Your task to perform on an android device: Go to CNN.com Image 0: 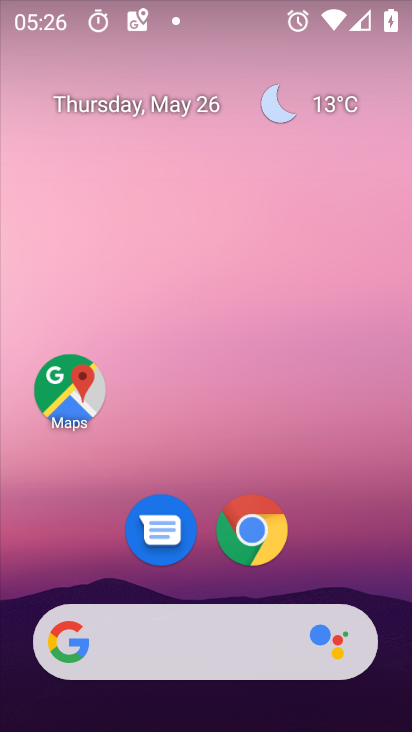
Step 0: drag from (194, 584) to (286, 13)
Your task to perform on an android device: Go to CNN.com Image 1: 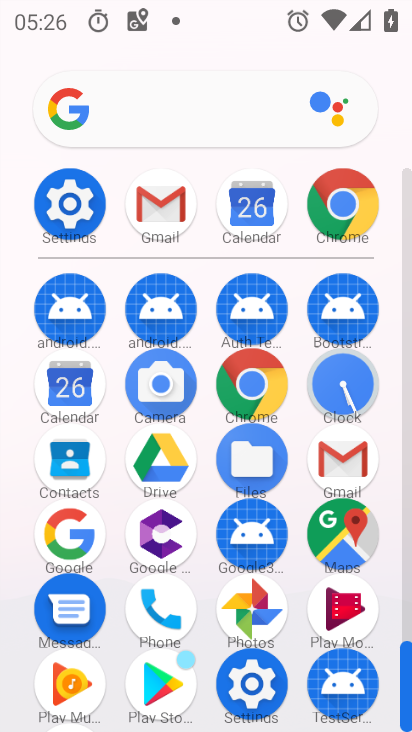
Step 1: drag from (255, 469) to (291, 7)
Your task to perform on an android device: Go to CNN.com Image 2: 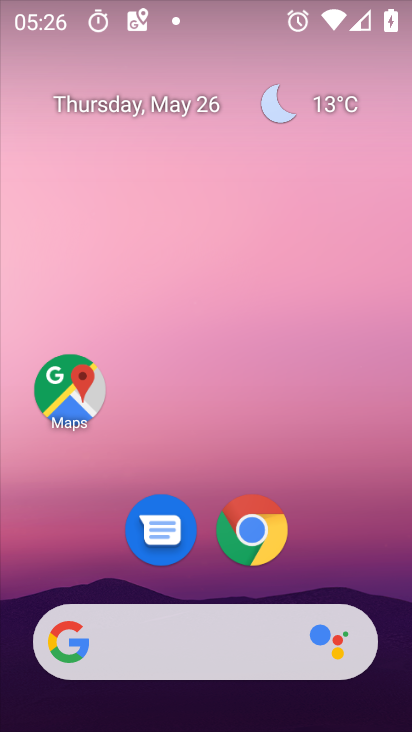
Step 2: drag from (238, 565) to (258, 18)
Your task to perform on an android device: Go to CNN.com Image 3: 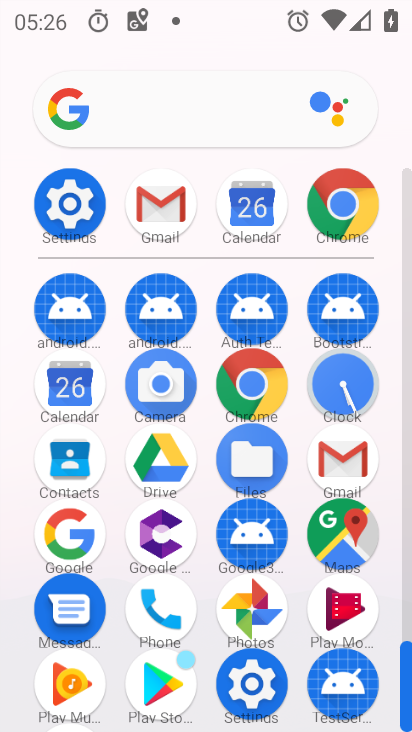
Step 3: click (246, 384)
Your task to perform on an android device: Go to CNN.com Image 4: 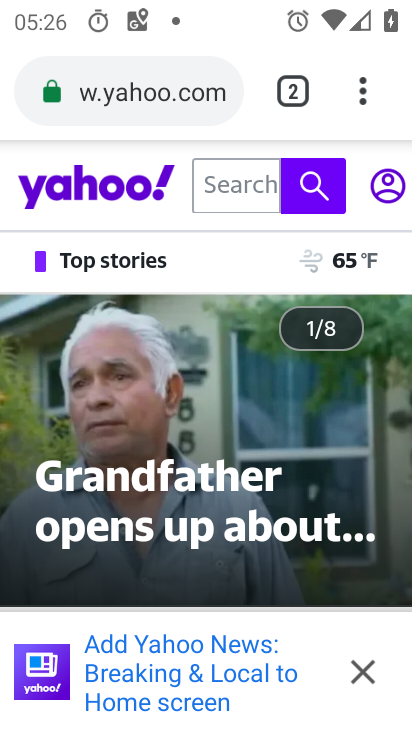
Step 4: click (189, 80)
Your task to perform on an android device: Go to CNN.com Image 5: 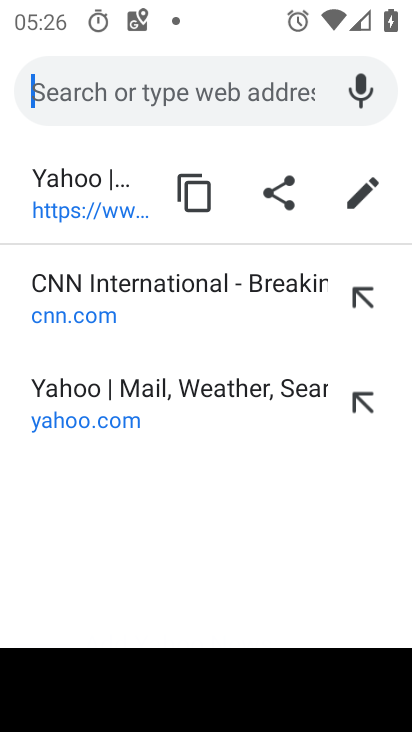
Step 5: type "cnn.com"
Your task to perform on an android device: Go to CNN.com Image 6: 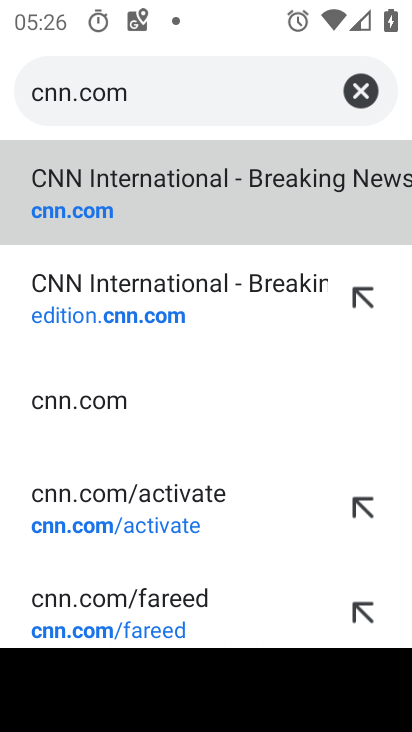
Step 6: click (253, 192)
Your task to perform on an android device: Go to CNN.com Image 7: 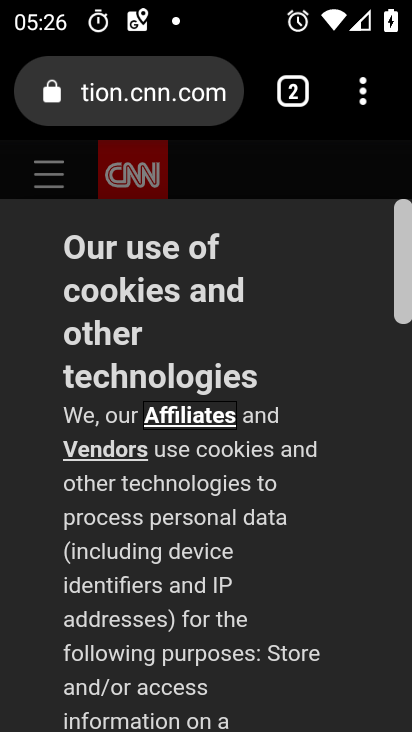
Step 7: task complete